Your task to perform on an android device: Check the weather Image 0: 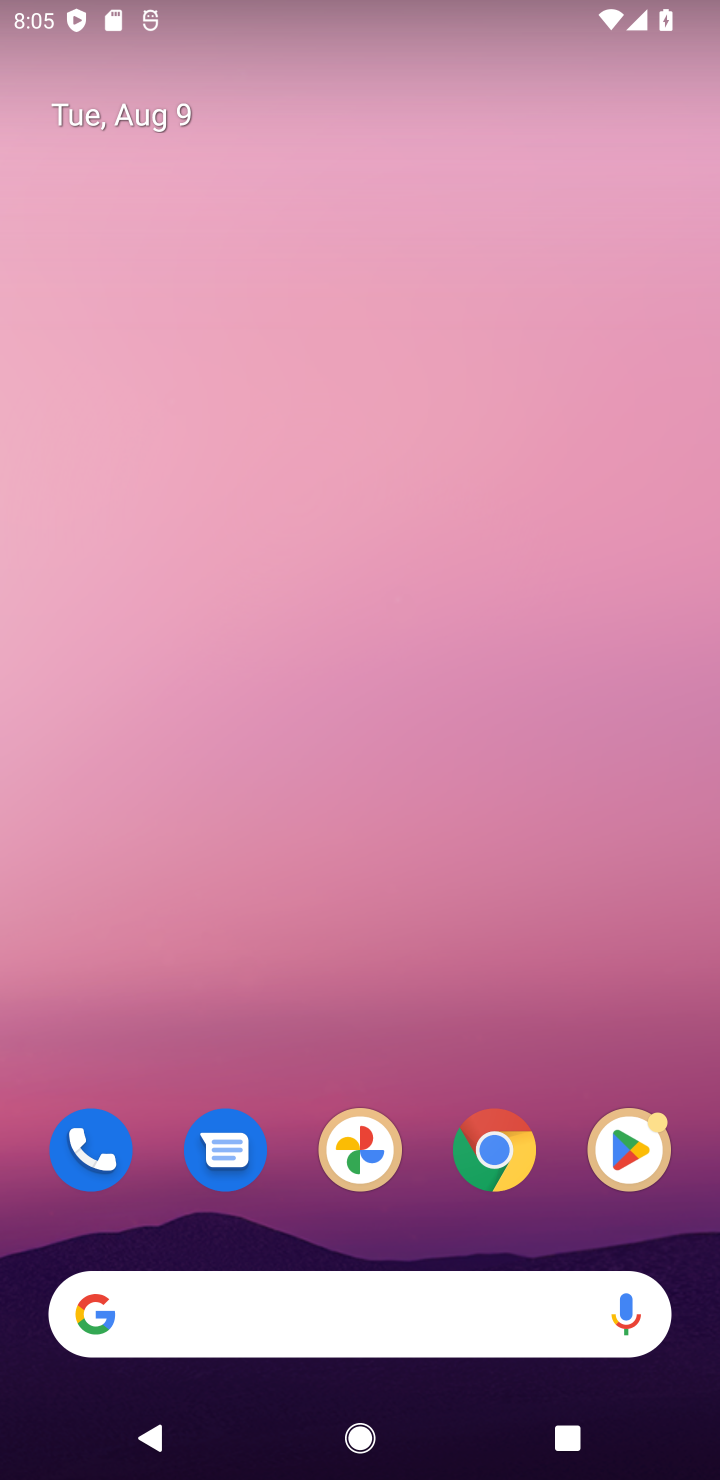
Step 0: click (253, 1287)
Your task to perform on an android device: Check the weather Image 1: 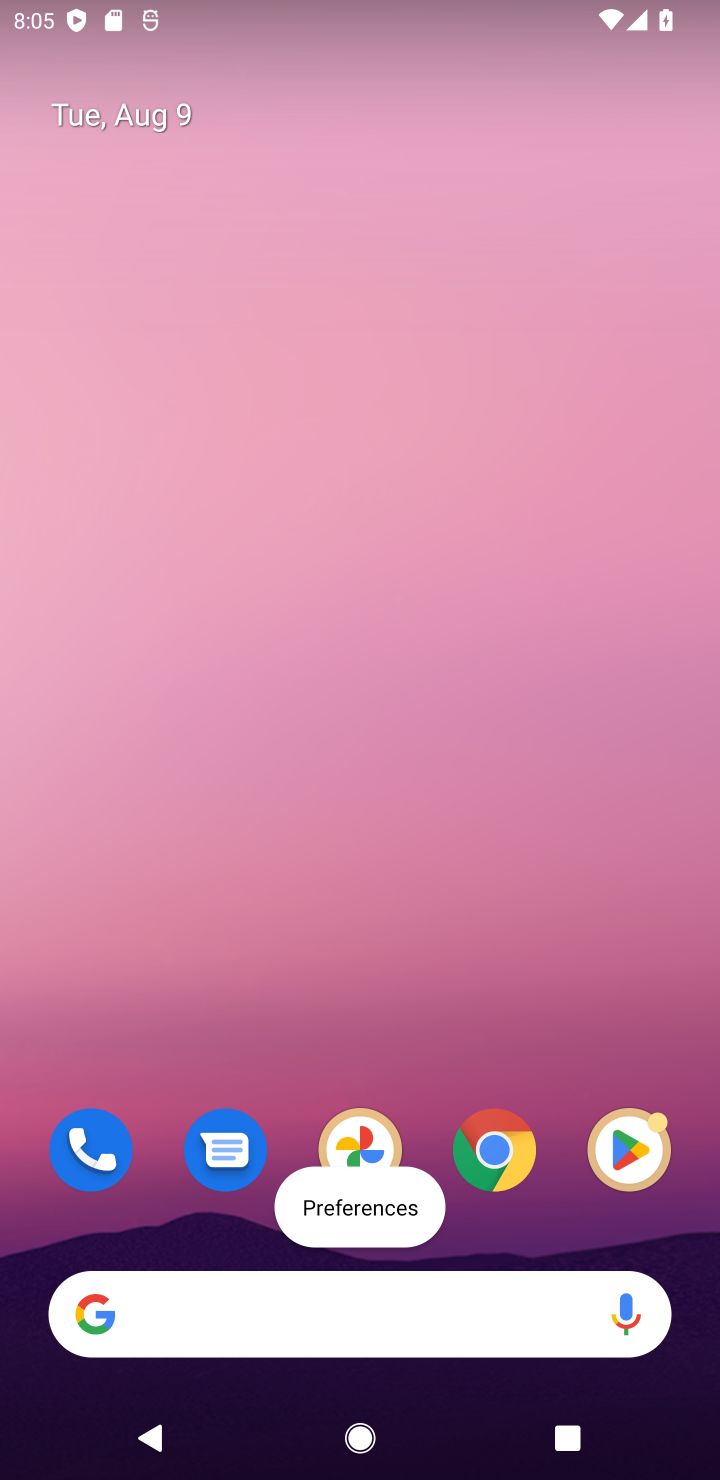
Step 1: click (253, 1310)
Your task to perform on an android device: Check the weather Image 2: 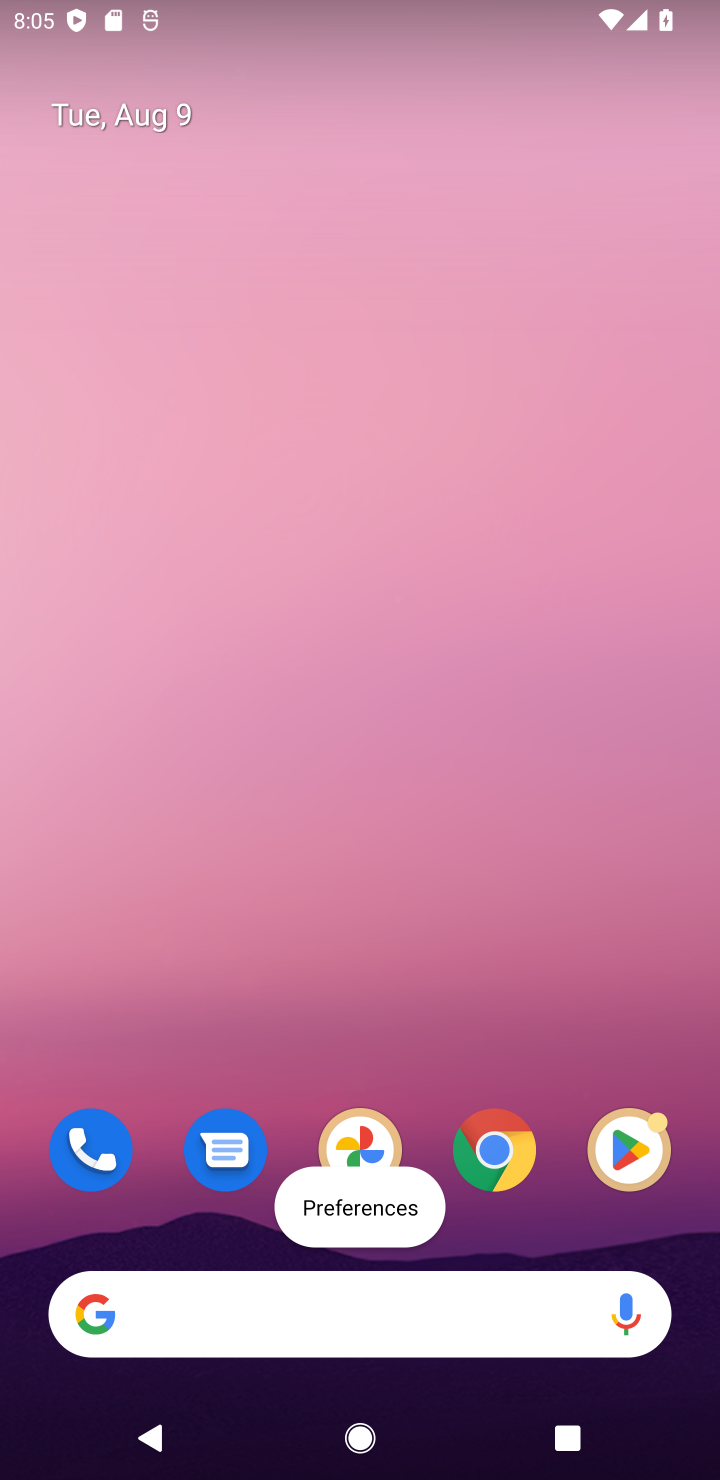
Step 2: click (233, 1301)
Your task to perform on an android device: Check the weather Image 3: 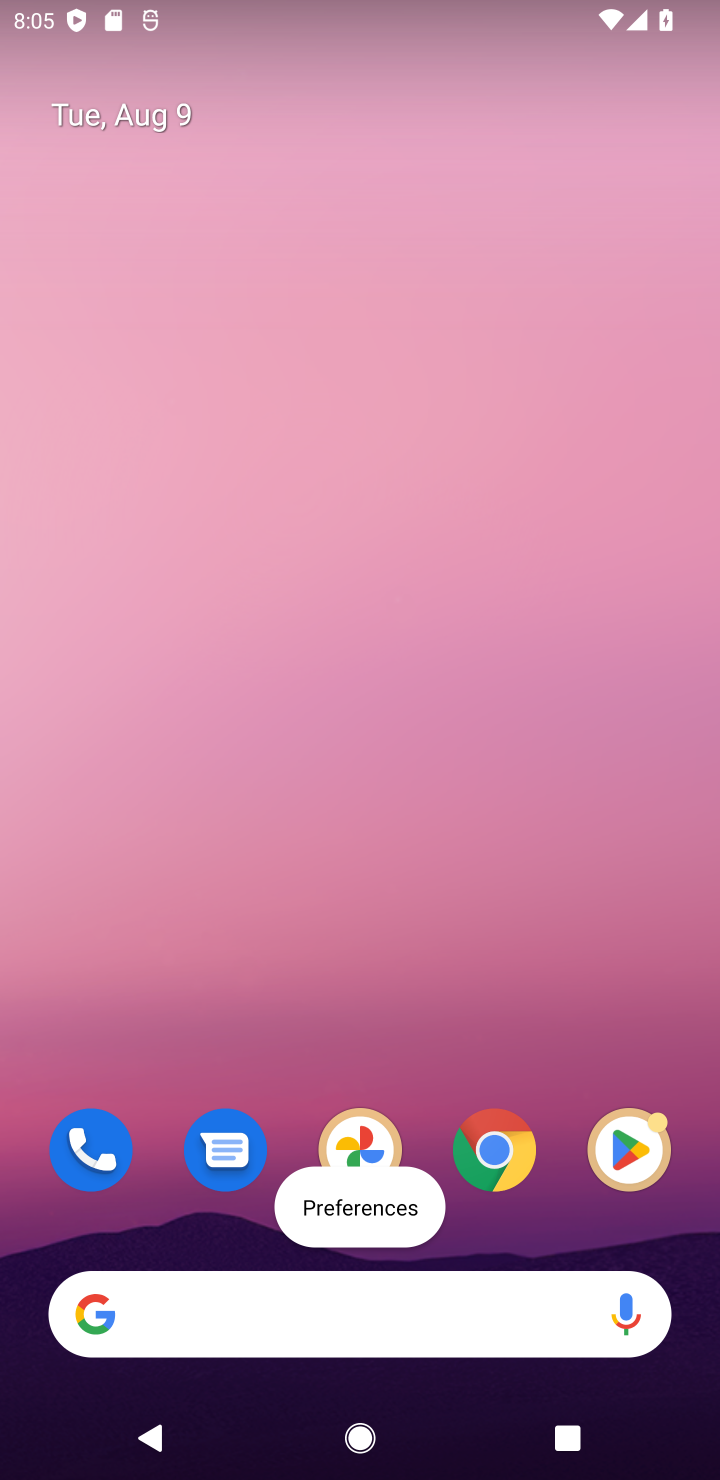
Step 3: click (323, 1296)
Your task to perform on an android device: Check the weather Image 4: 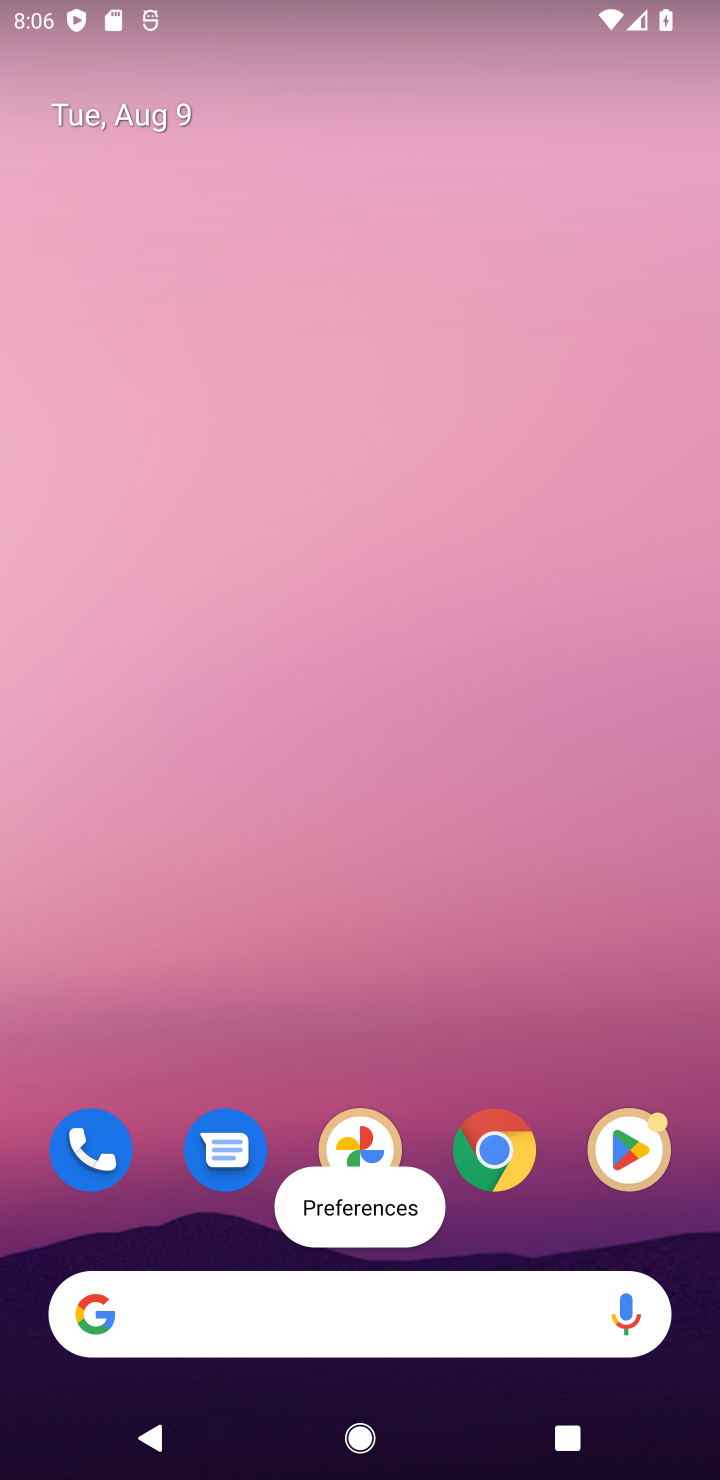
Step 4: click (324, 1299)
Your task to perform on an android device: Check the weather Image 5: 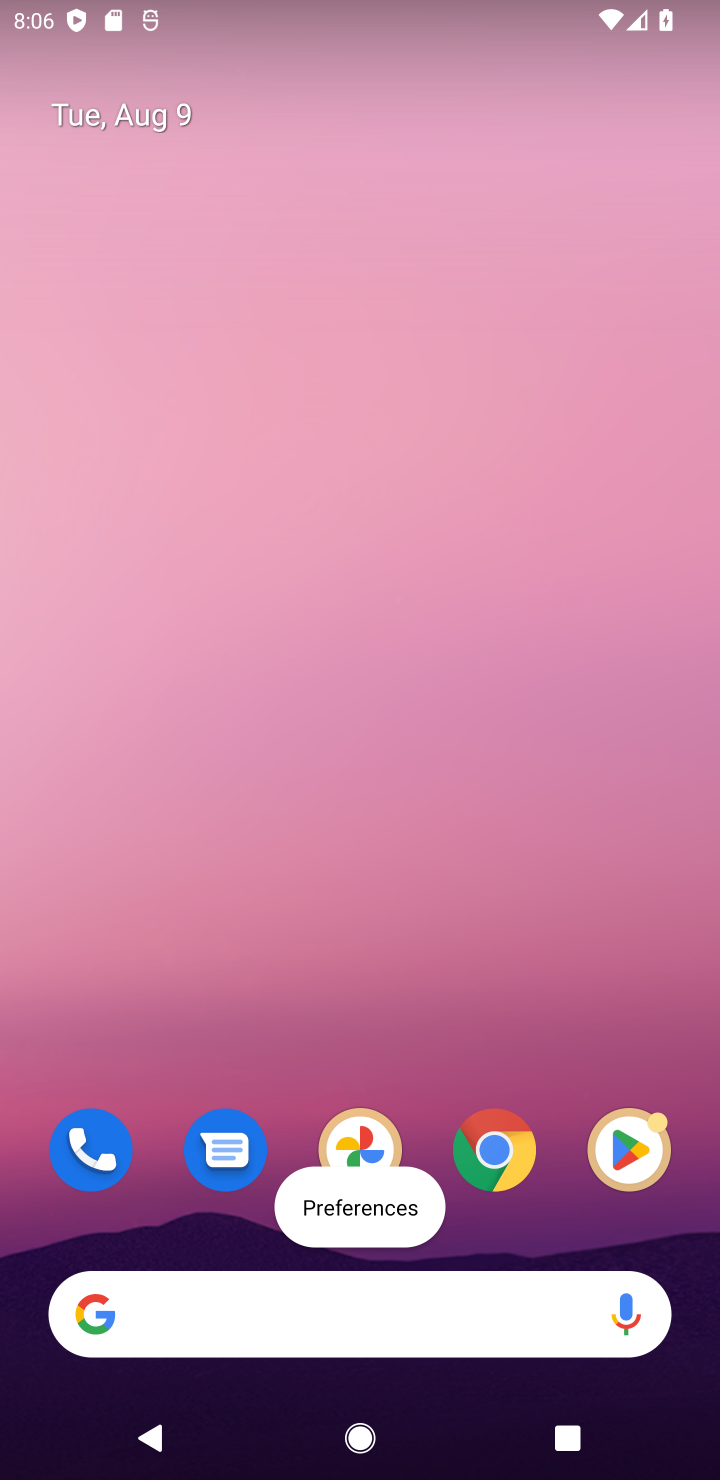
Step 5: click (249, 1319)
Your task to perform on an android device: Check the weather Image 6: 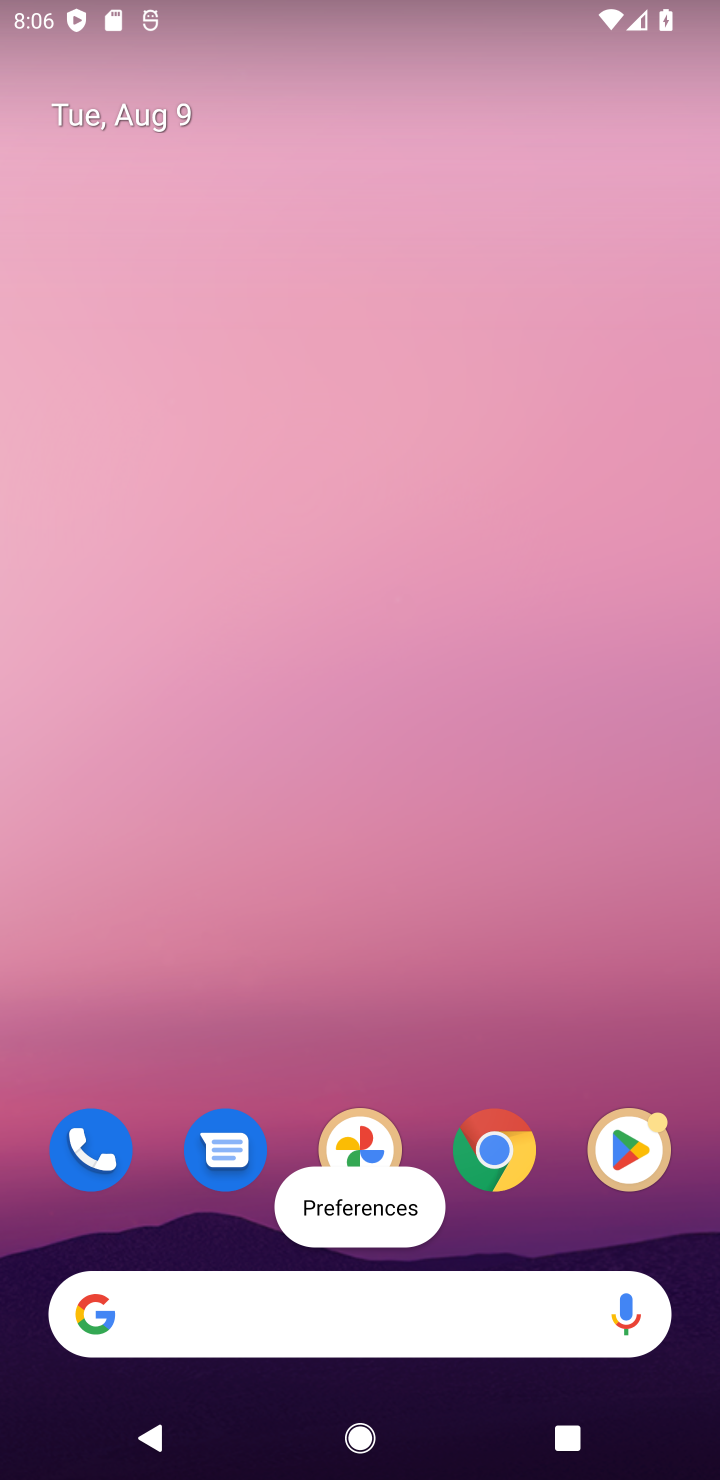
Step 6: click (249, 1317)
Your task to perform on an android device: Check the weather Image 7: 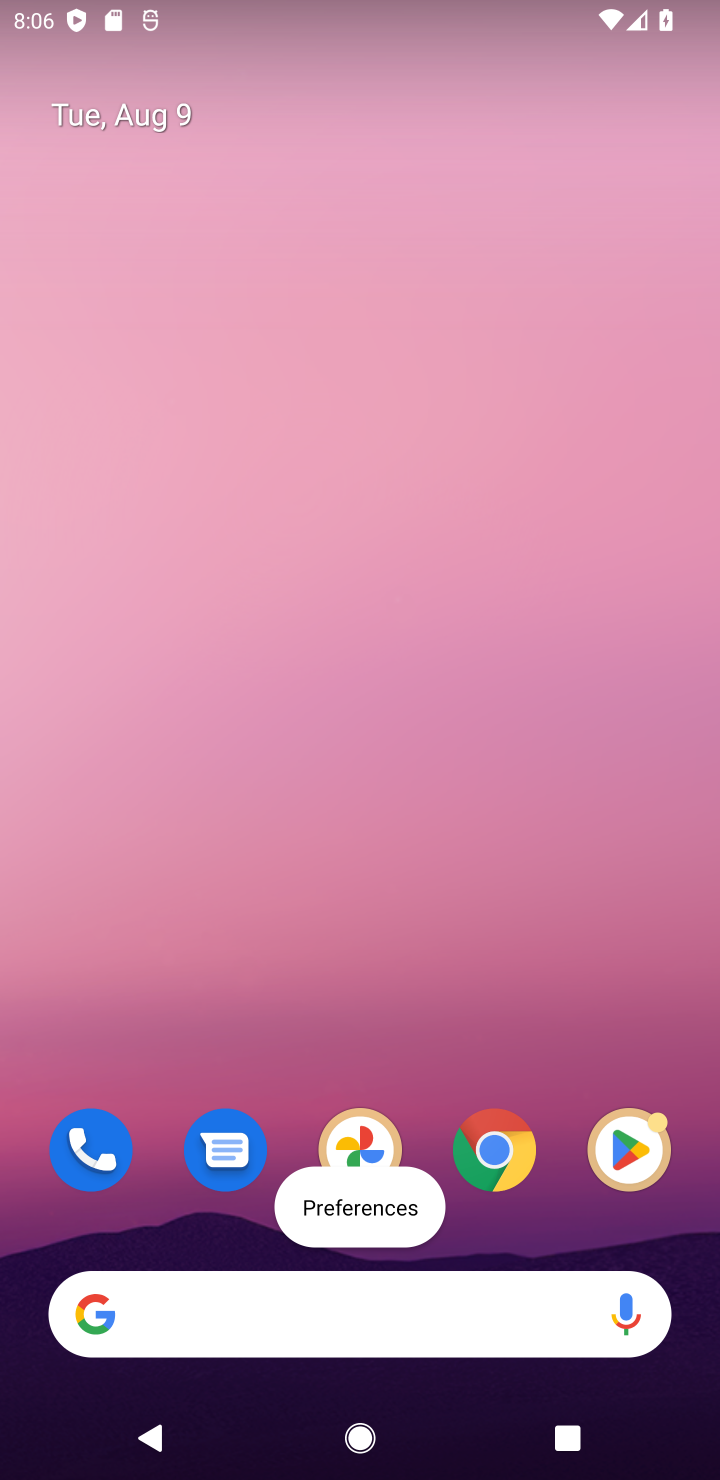
Step 7: click (249, 1317)
Your task to perform on an android device: Check the weather Image 8: 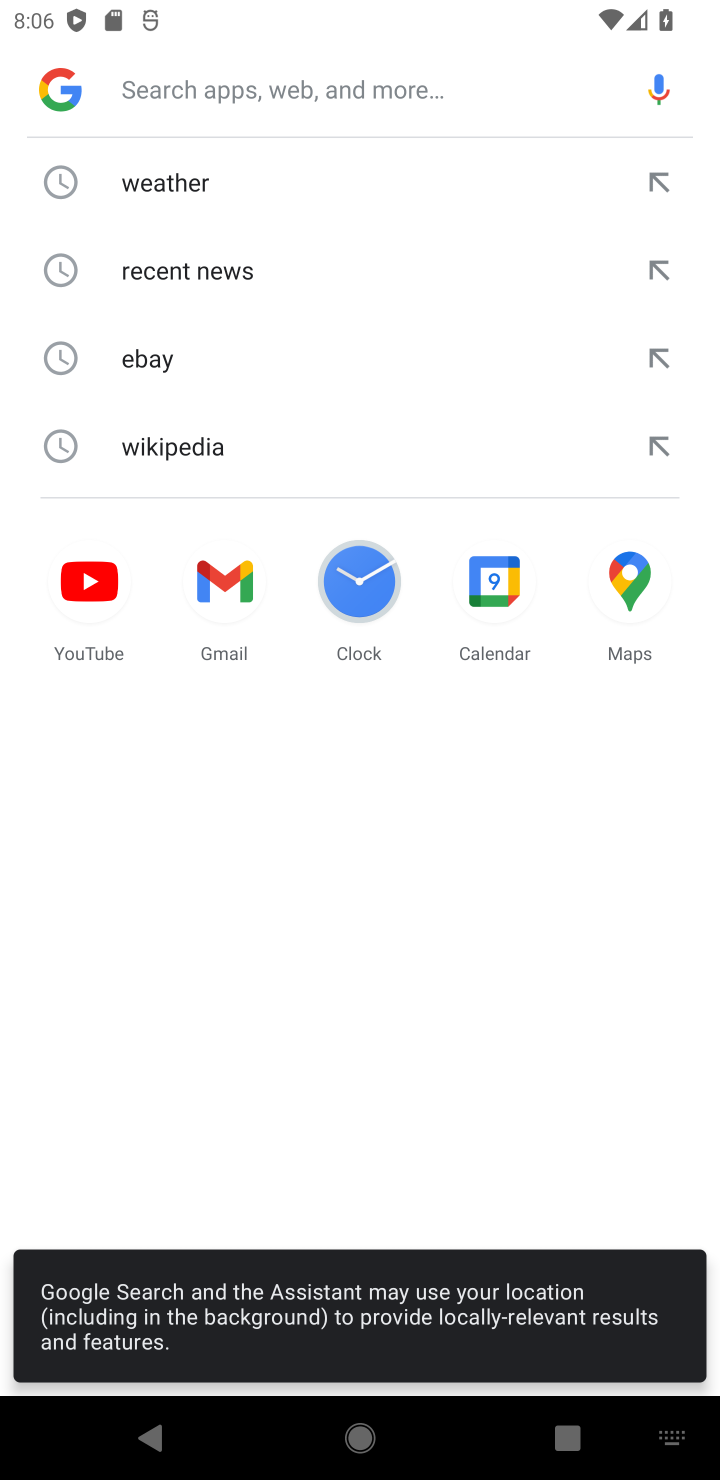
Step 8: click (170, 191)
Your task to perform on an android device: Check the weather Image 9: 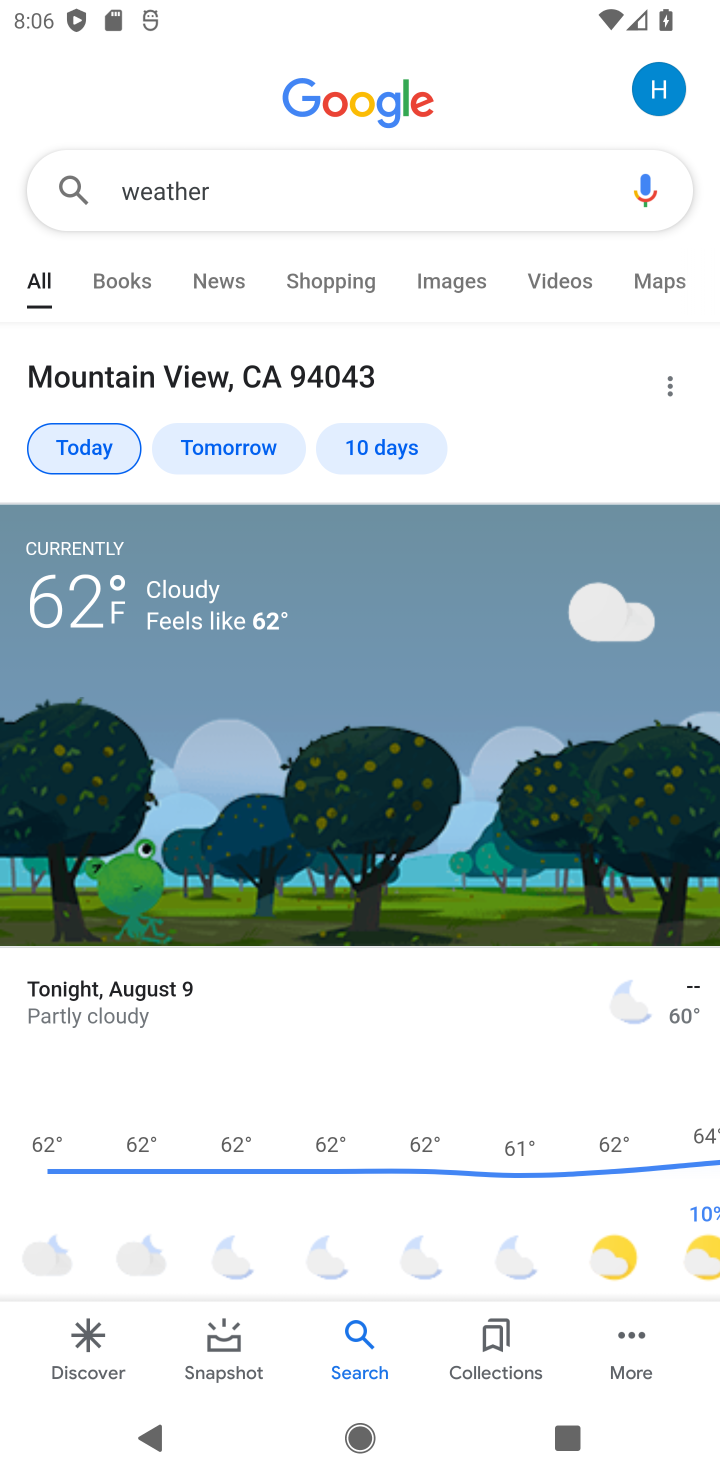
Step 9: task complete